Your task to perform on an android device: Open the map Image 0: 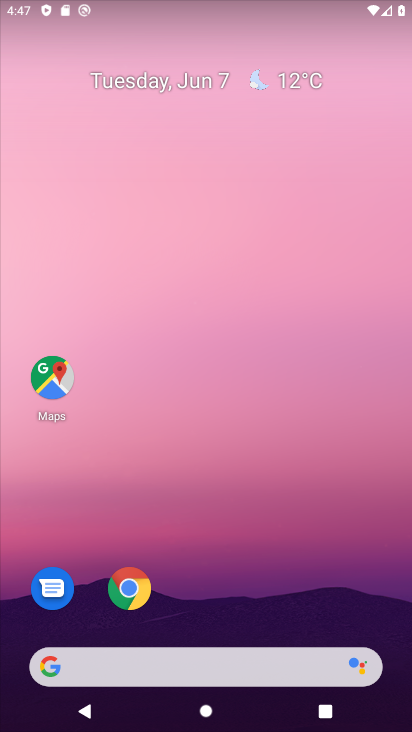
Step 0: click (46, 383)
Your task to perform on an android device: Open the map Image 1: 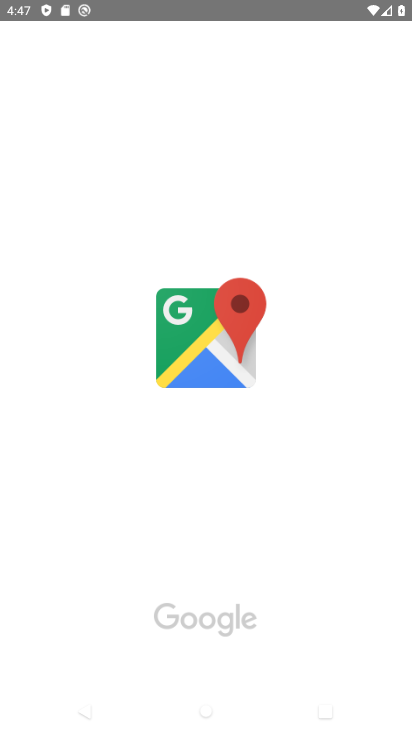
Step 1: task complete